Your task to perform on an android device: Go to Amazon Image 0: 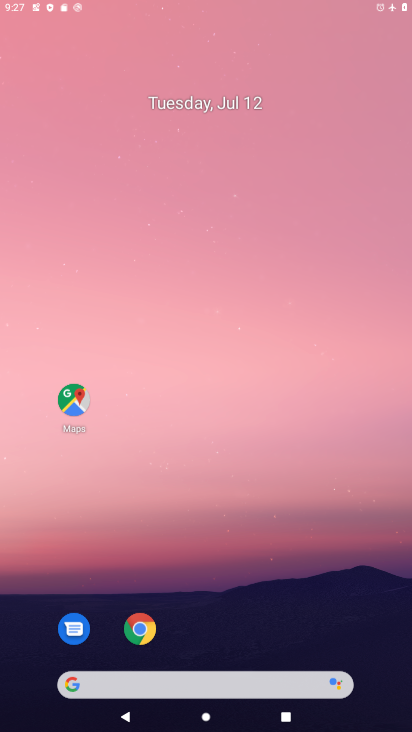
Step 0: click (246, 176)
Your task to perform on an android device: Go to Amazon Image 1: 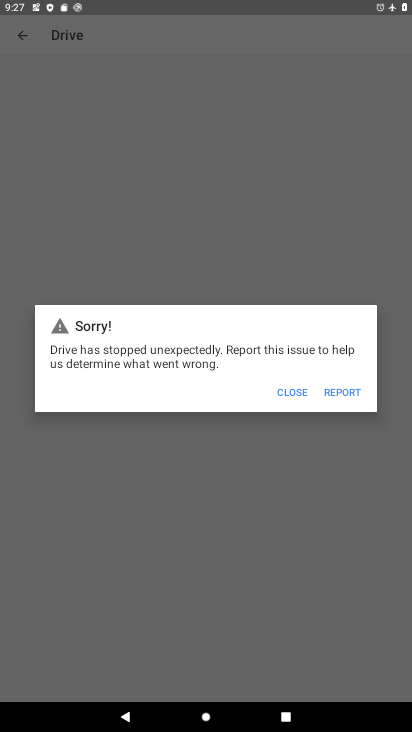
Step 1: click (294, 397)
Your task to perform on an android device: Go to Amazon Image 2: 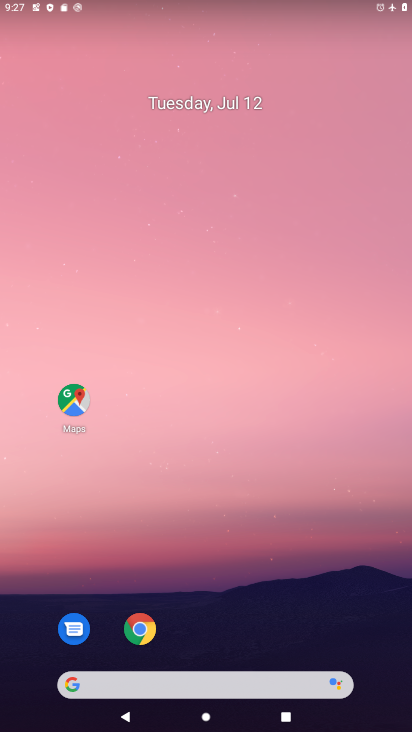
Step 2: drag from (241, 625) to (223, 296)
Your task to perform on an android device: Go to Amazon Image 3: 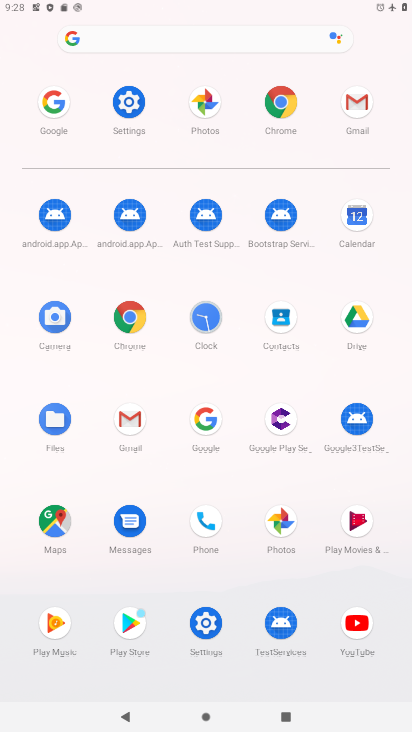
Step 3: click (291, 89)
Your task to perform on an android device: Go to Amazon Image 4: 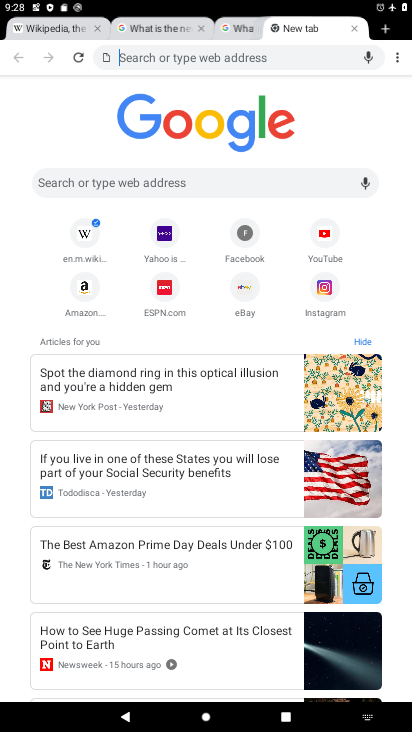
Step 4: click (399, 53)
Your task to perform on an android device: Go to Amazon Image 5: 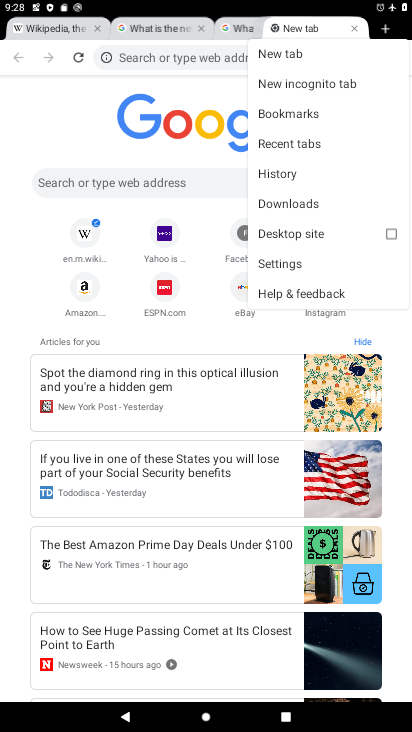
Step 5: click (61, 104)
Your task to perform on an android device: Go to Amazon Image 6: 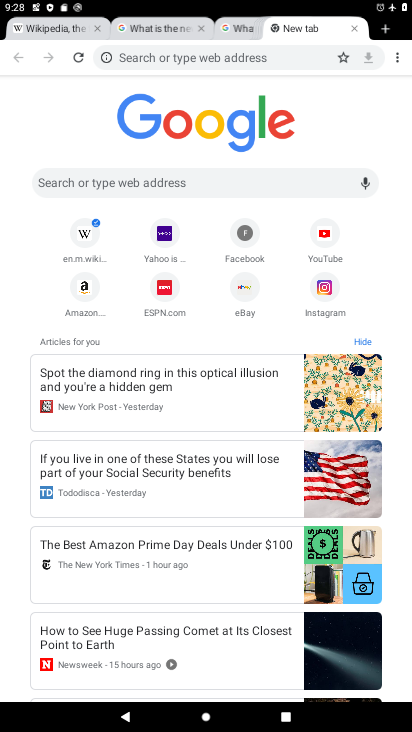
Step 6: click (86, 279)
Your task to perform on an android device: Go to Amazon Image 7: 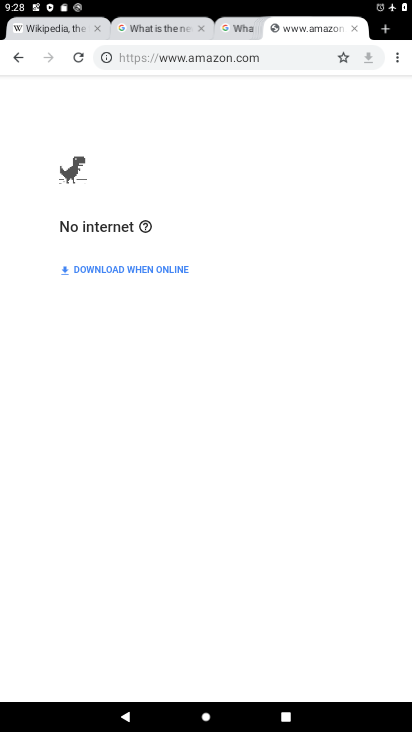
Step 7: task complete